Your task to perform on an android device: What's on my calendar tomorrow? Image 0: 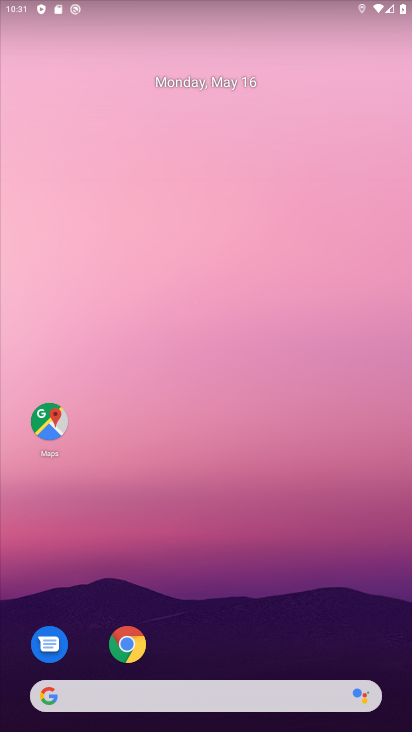
Step 0: drag from (197, 726) to (195, 162)
Your task to perform on an android device: What's on my calendar tomorrow? Image 1: 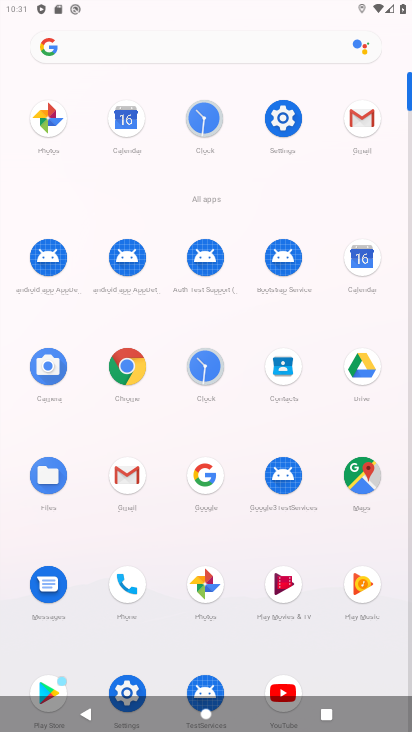
Step 1: click (358, 263)
Your task to perform on an android device: What's on my calendar tomorrow? Image 2: 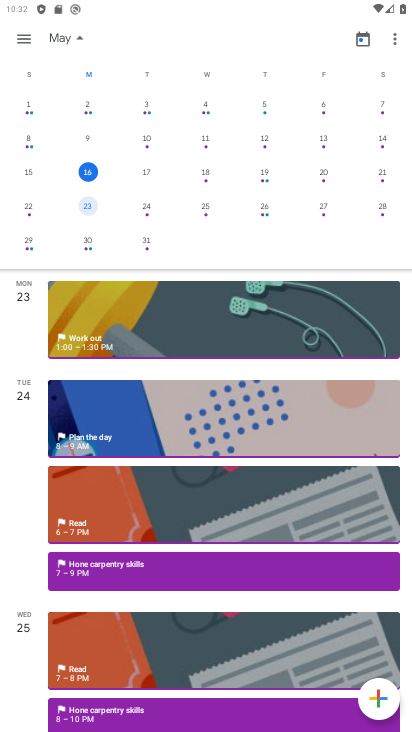
Step 2: click (146, 169)
Your task to perform on an android device: What's on my calendar tomorrow? Image 3: 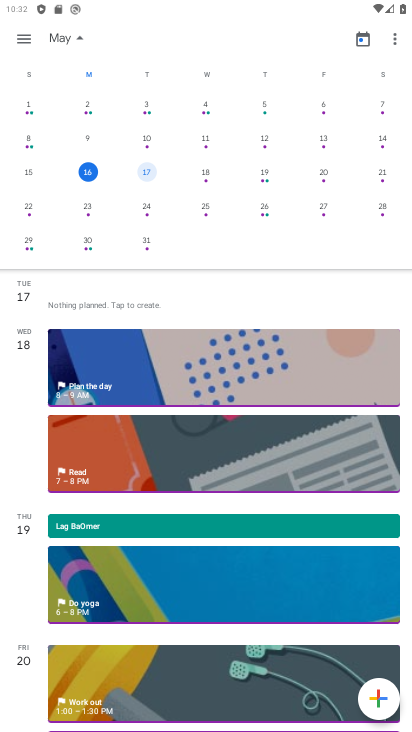
Step 3: task complete